Your task to perform on an android device: allow cookies in the chrome app Image 0: 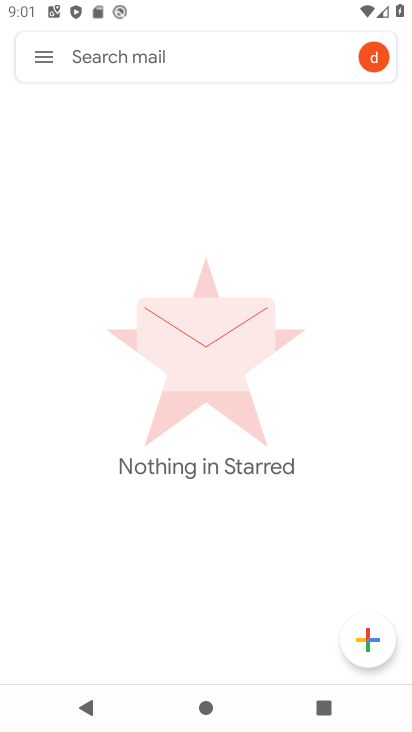
Step 0: press back button
Your task to perform on an android device: allow cookies in the chrome app Image 1: 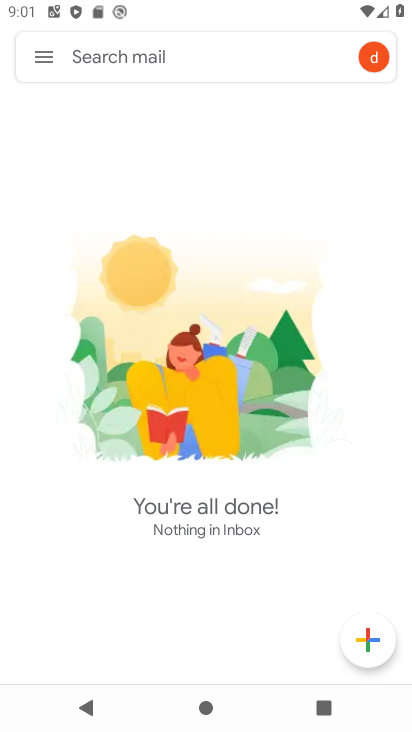
Step 1: press back button
Your task to perform on an android device: allow cookies in the chrome app Image 2: 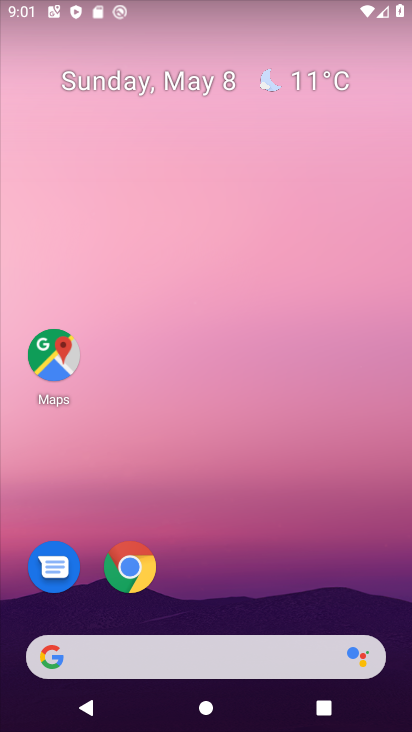
Step 2: click (127, 555)
Your task to perform on an android device: allow cookies in the chrome app Image 3: 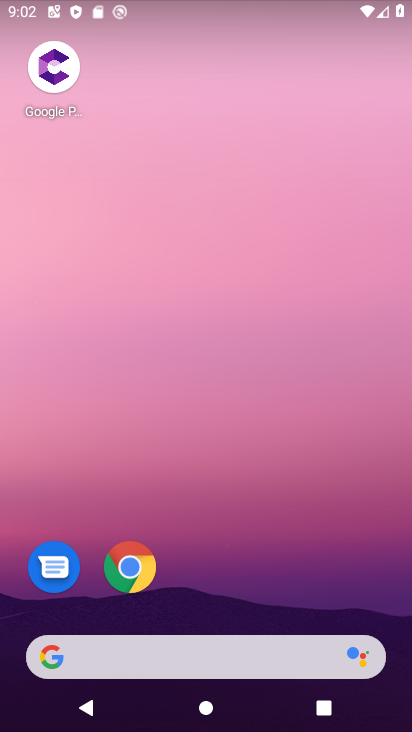
Step 3: click (131, 566)
Your task to perform on an android device: allow cookies in the chrome app Image 4: 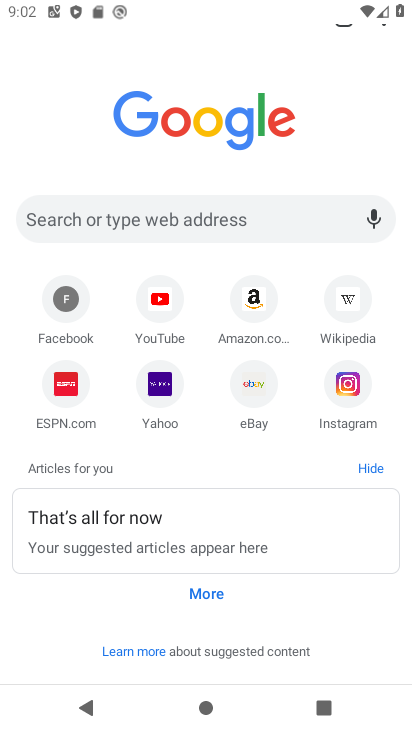
Step 4: drag from (262, 204) to (236, 644)
Your task to perform on an android device: allow cookies in the chrome app Image 5: 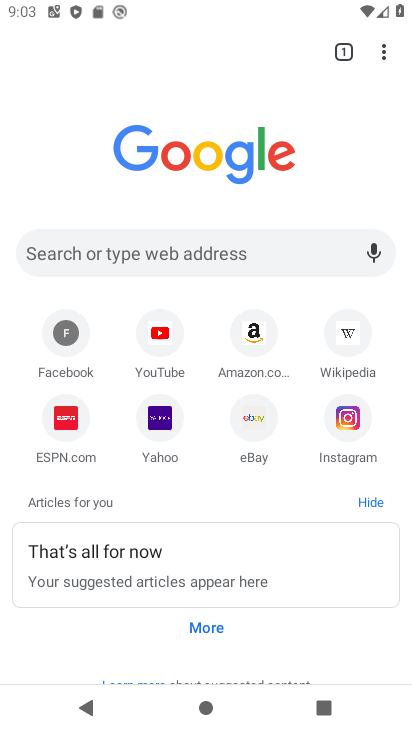
Step 5: click (384, 50)
Your task to perform on an android device: allow cookies in the chrome app Image 6: 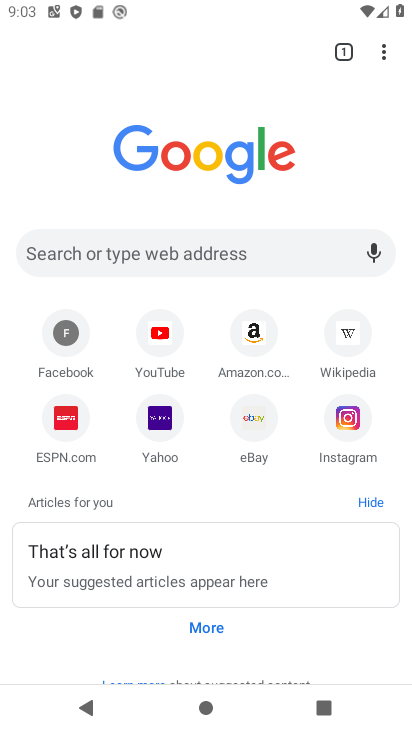
Step 6: drag from (373, 43) to (211, 472)
Your task to perform on an android device: allow cookies in the chrome app Image 7: 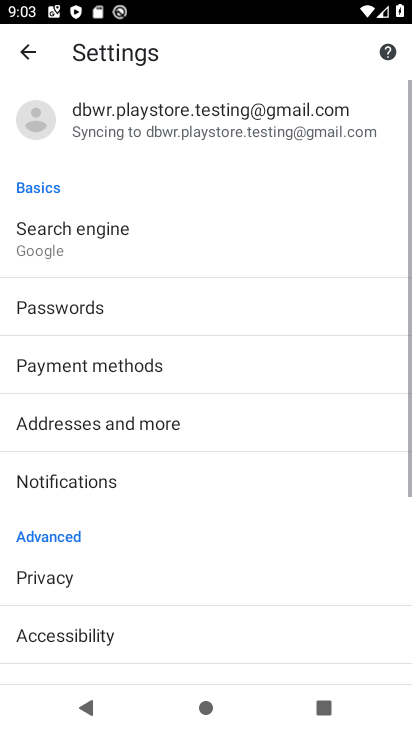
Step 7: drag from (145, 588) to (225, 118)
Your task to perform on an android device: allow cookies in the chrome app Image 8: 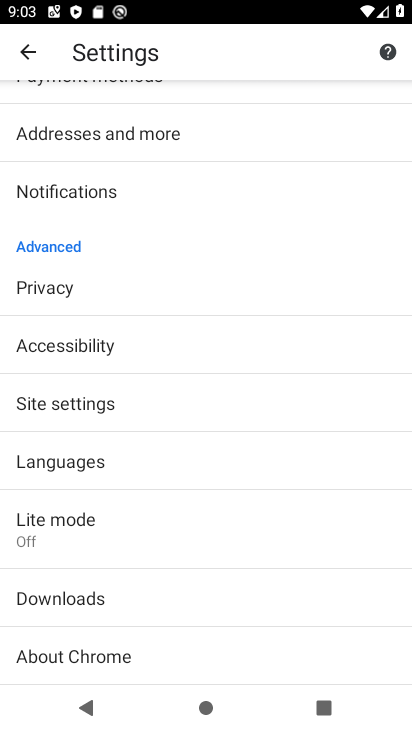
Step 8: click (89, 403)
Your task to perform on an android device: allow cookies in the chrome app Image 9: 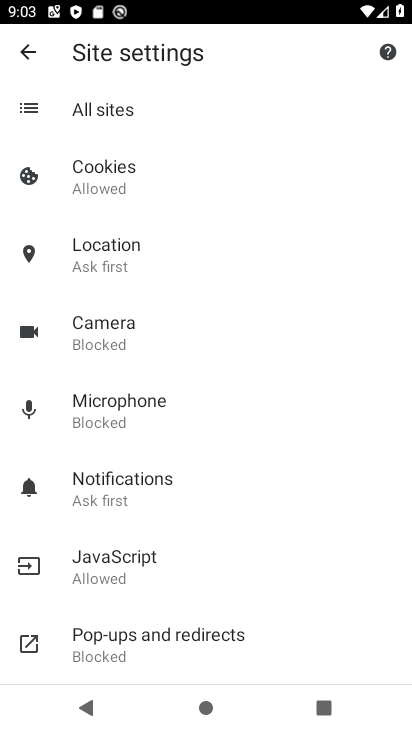
Step 9: click (128, 181)
Your task to perform on an android device: allow cookies in the chrome app Image 10: 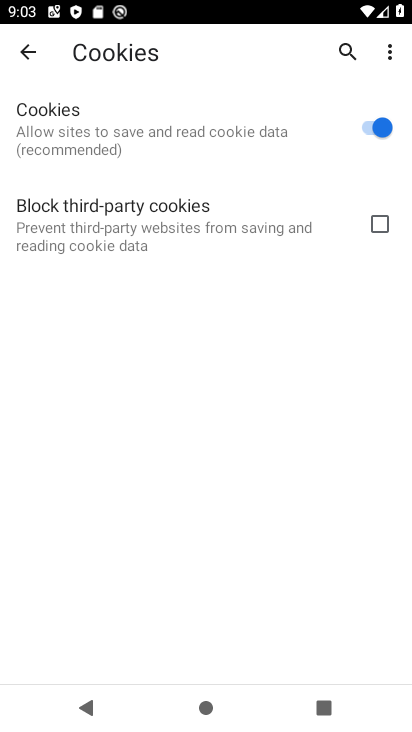
Step 10: task complete